Your task to perform on an android device: add a contact Image 0: 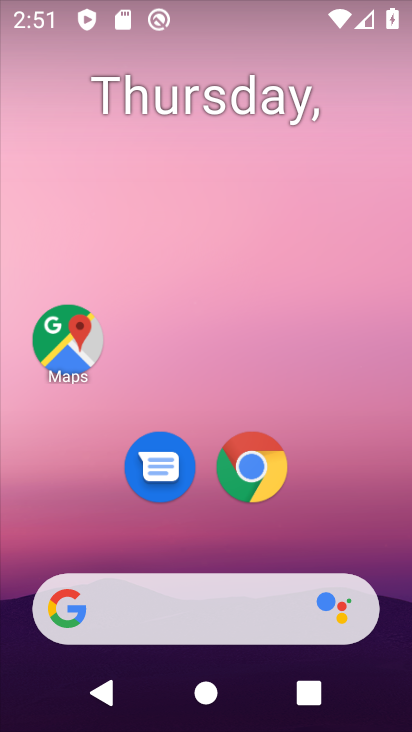
Step 0: drag from (257, 597) to (242, 136)
Your task to perform on an android device: add a contact Image 1: 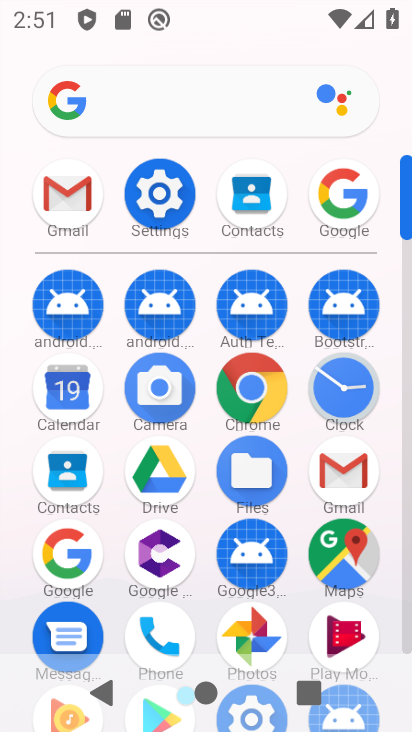
Step 1: click (85, 474)
Your task to perform on an android device: add a contact Image 2: 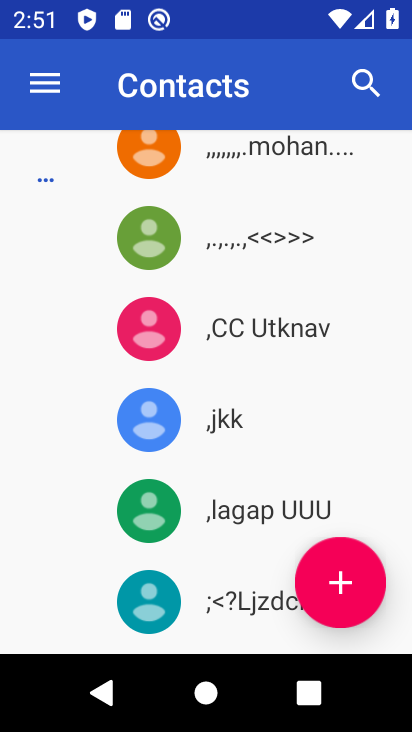
Step 2: click (358, 572)
Your task to perform on an android device: add a contact Image 3: 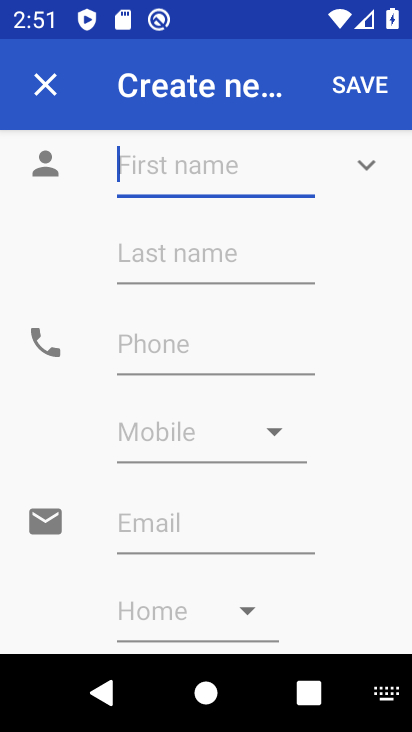
Step 3: type "zxncbzxm"
Your task to perform on an android device: add a contact Image 4: 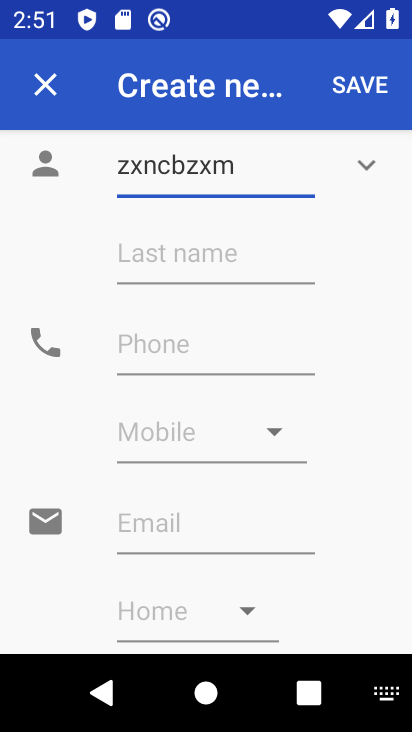
Step 4: click (360, 314)
Your task to perform on an android device: add a contact Image 5: 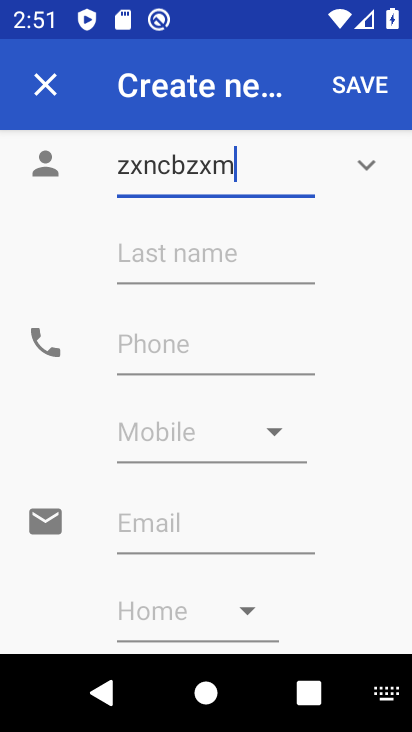
Step 5: click (145, 335)
Your task to perform on an android device: add a contact Image 6: 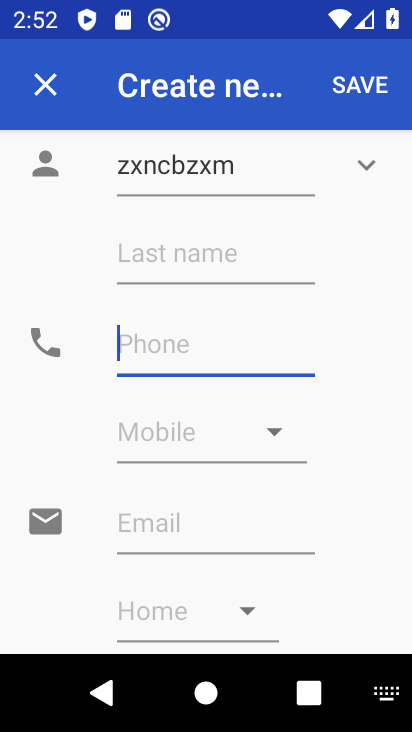
Step 6: type "45345498"
Your task to perform on an android device: add a contact Image 7: 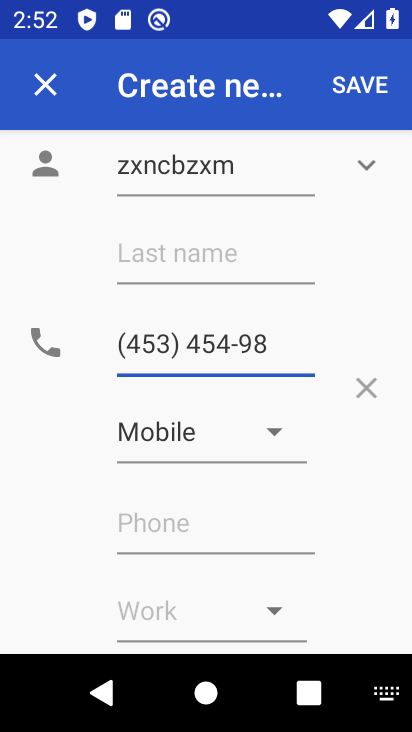
Step 7: click (373, 92)
Your task to perform on an android device: add a contact Image 8: 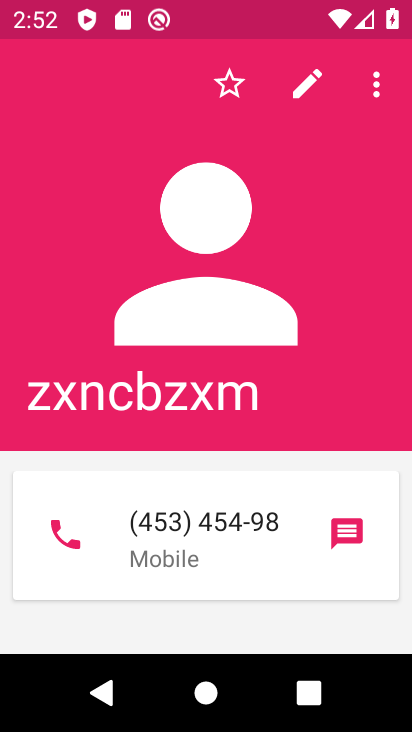
Step 8: task complete